Your task to perform on an android device: Turn off the flashlight Image 0: 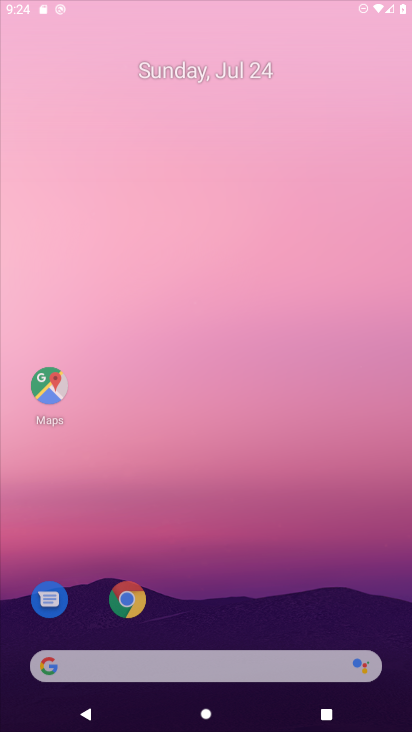
Step 0: drag from (216, 620) to (28, 231)
Your task to perform on an android device: Turn off the flashlight Image 1: 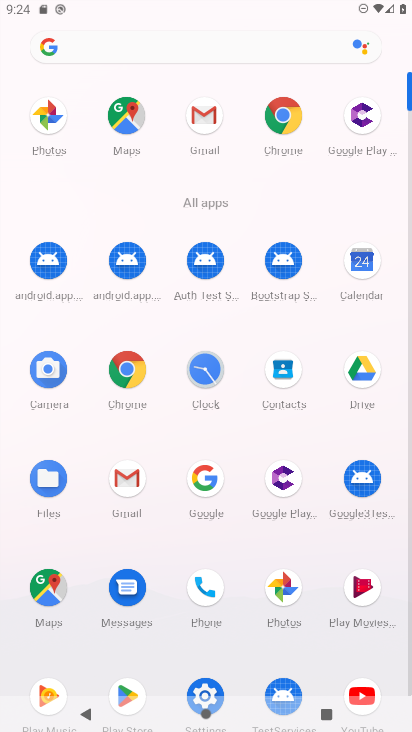
Step 1: drag from (200, 596) to (252, 266)
Your task to perform on an android device: Turn off the flashlight Image 2: 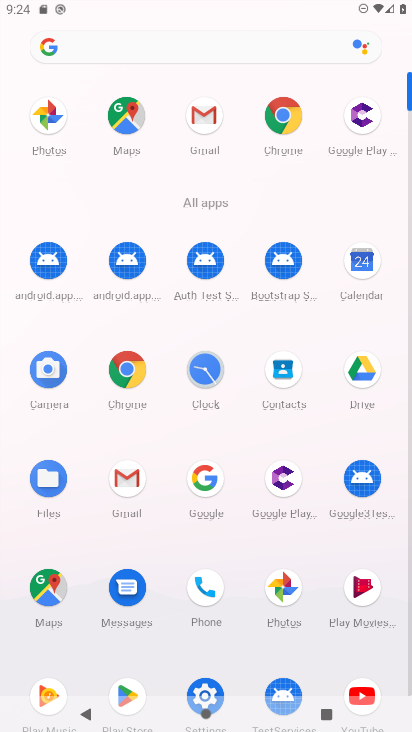
Step 2: drag from (244, 660) to (314, 209)
Your task to perform on an android device: Turn off the flashlight Image 3: 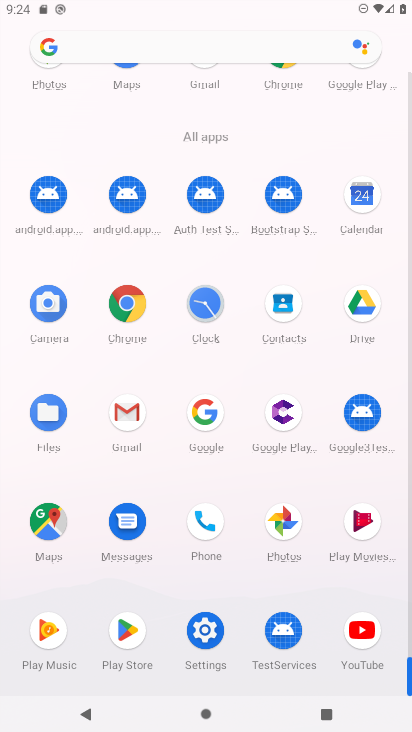
Step 3: drag from (222, 648) to (241, 257)
Your task to perform on an android device: Turn off the flashlight Image 4: 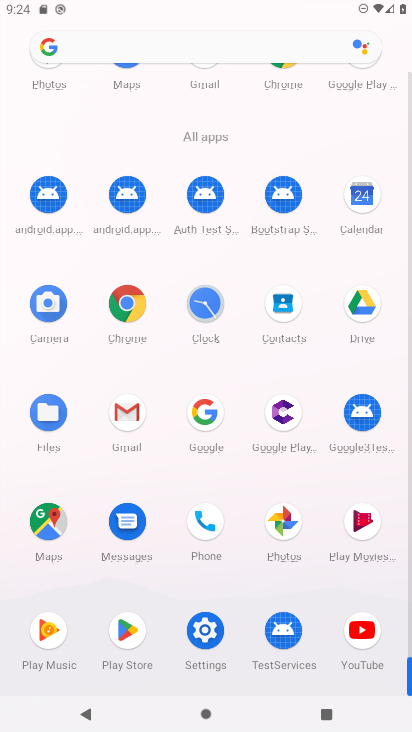
Step 4: click (197, 624)
Your task to perform on an android device: Turn off the flashlight Image 5: 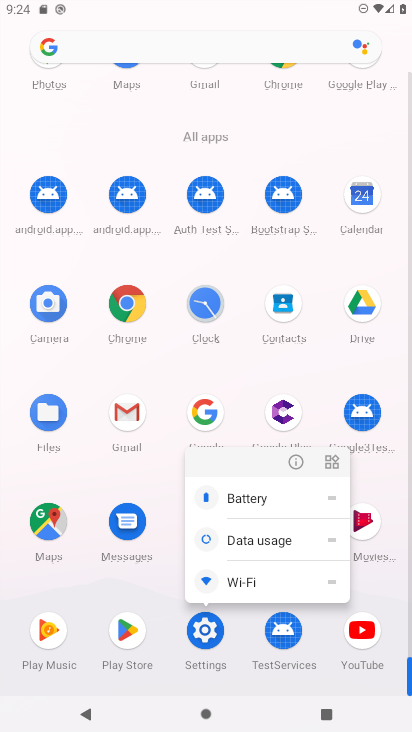
Step 5: click (296, 461)
Your task to perform on an android device: Turn off the flashlight Image 6: 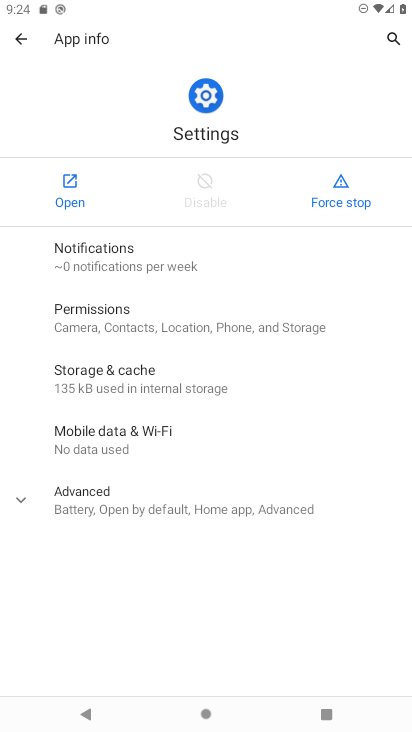
Step 6: click (76, 199)
Your task to perform on an android device: Turn off the flashlight Image 7: 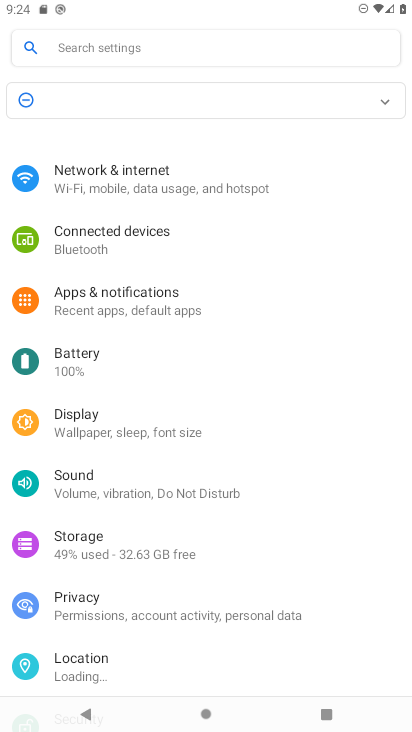
Step 7: click (254, 259)
Your task to perform on an android device: Turn off the flashlight Image 8: 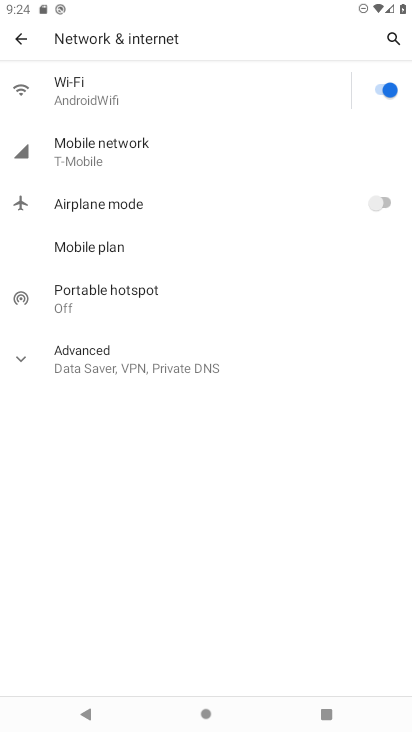
Step 8: click (18, 49)
Your task to perform on an android device: Turn off the flashlight Image 9: 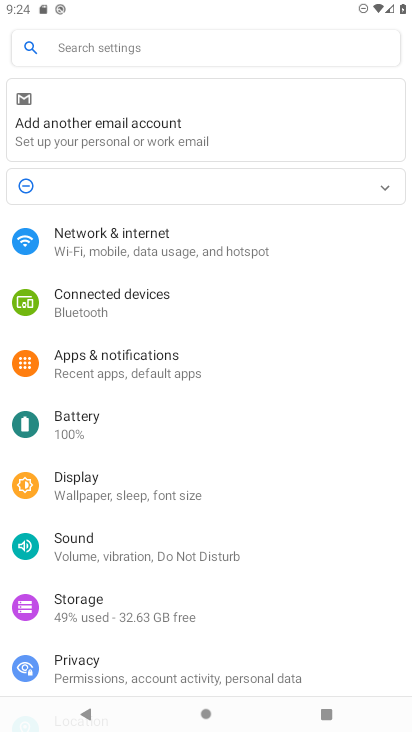
Step 9: click (172, 42)
Your task to perform on an android device: Turn off the flashlight Image 10: 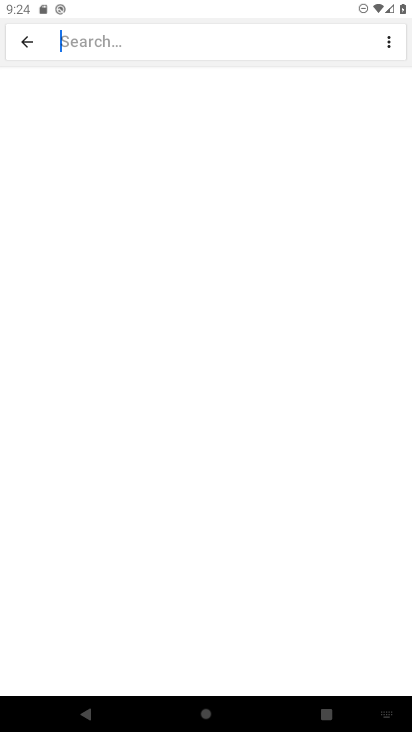
Step 10: type ""
Your task to perform on an android device: Turn off the flashlight Image 11: 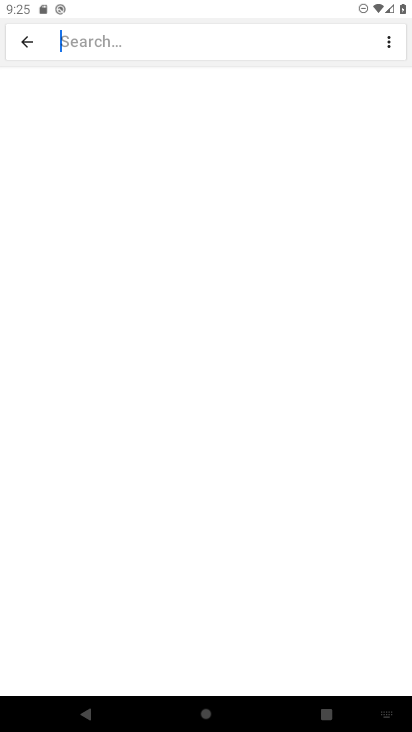
Step 11: type "flashlight"
Your task to perform on an android device: Turn off the flashlight Image 12: 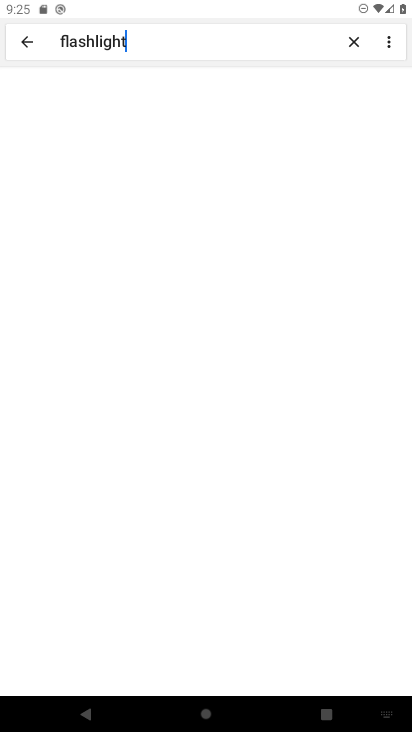
Step 12: type ""
Your task to perform on an android device: Turn off the flashlight Image 13: 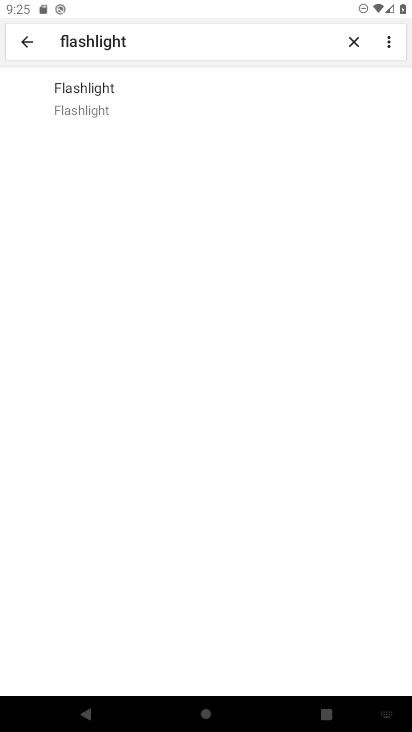
Step 13: click (103, 109)
Your task to perform on an android device: Turn off the flashlight Image 14: 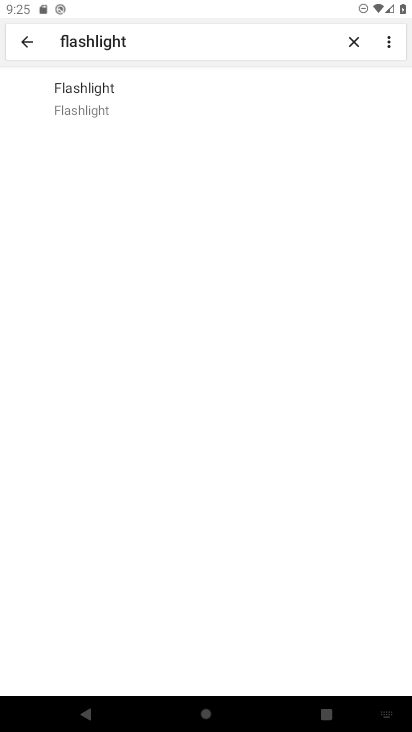
Step 14: drag from (188, 509) to (282, 30)
Your task to perform on an android device: Turn off the flashlight Image 15: 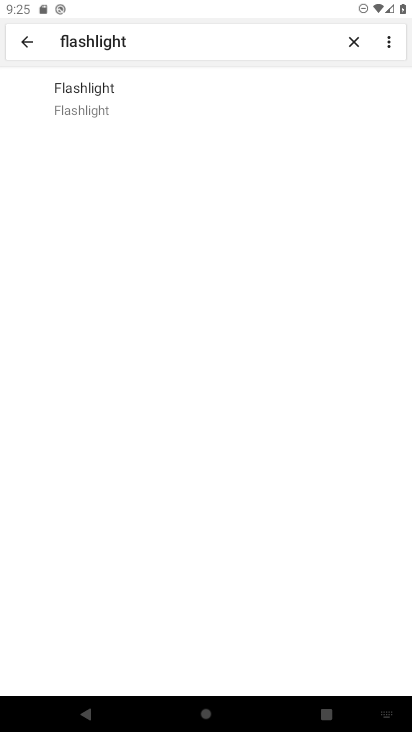
Step 15: click (132, 105)
Your task to perform on an android device: Turn off the flashlight Image 16: 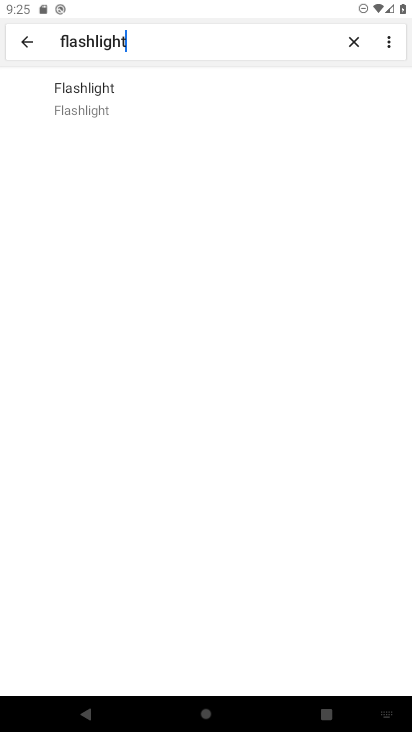
Step 16: task complete